Your task to perform on an android device: Show me productivity apps on the Play Store Image 0: 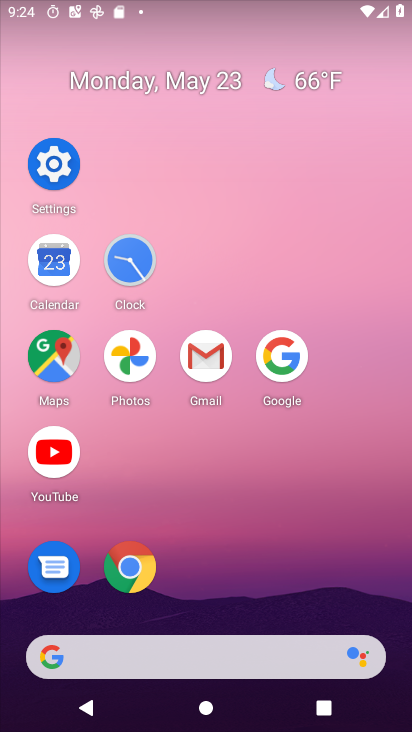
Step 0: drag from (258, 546) to (325, 110)
Your task to perform on an android device: Show me productivity apps on the Play Store Image 1: 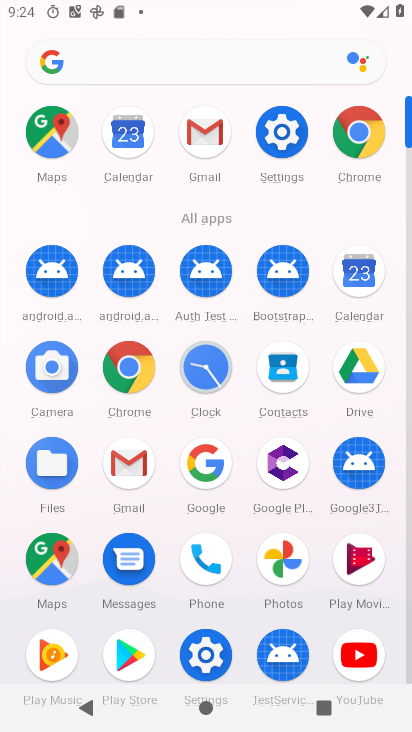
Step 1: click (127, 650)
Your task to perform on an android device: Show me productivity apps on the Play Store Image 2: 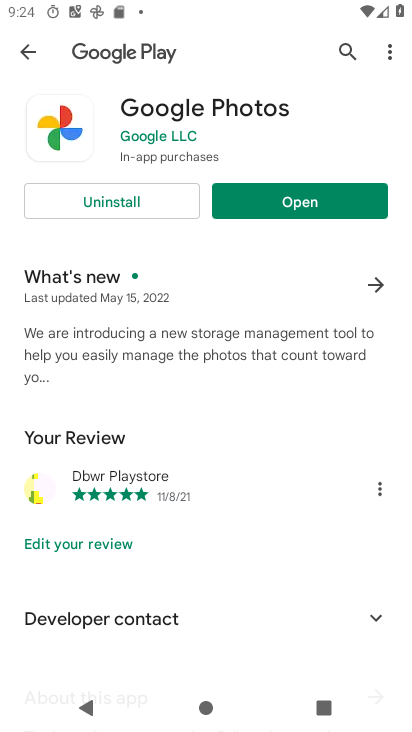
Step 2: click (24, 69)
Your task to perform on an android device: Show me productivity apps on the Play Store Image 3: 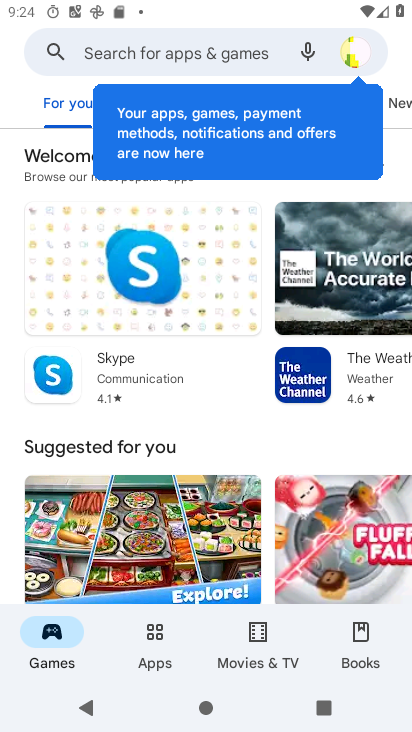
Step 3: click (183, 648)
Your task to perform on an android device: Show me productivity apps on the Play Store Image 4: 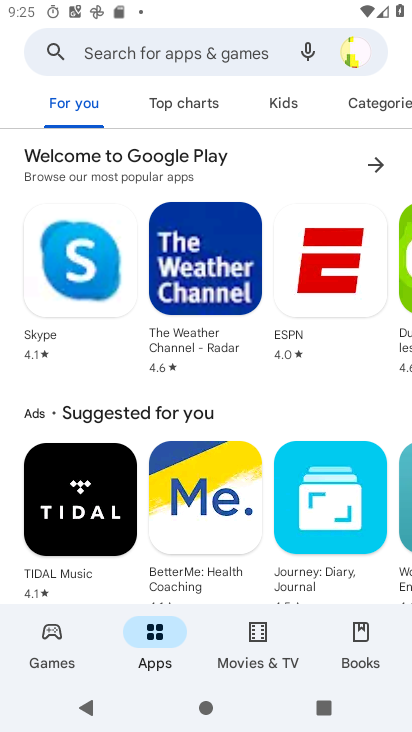
Step 4: click (371, 107)
Your task to perform on an android device: Show me productivity apps on the Play Store Image 5: 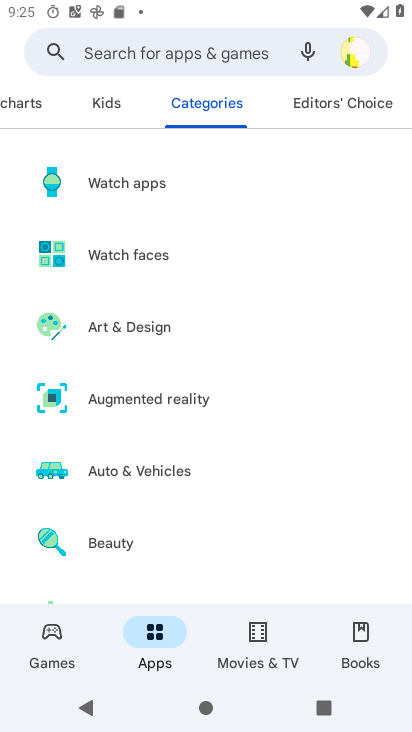
Step 5: drag from (167, 527) to (237, 115)
Your task to perform on an android device: Show me productivity apps on the Play Store Image 6: 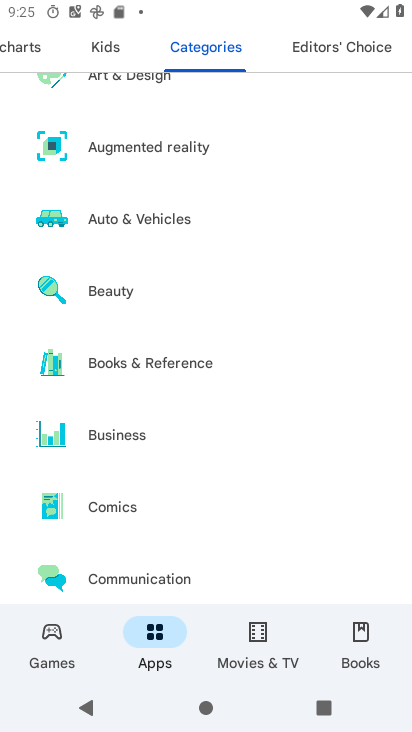
Step 6: drag from (210, 506) to (267, 171)
Your task to perform on an android device: Show me productivity apps on the Play Store Image 7: 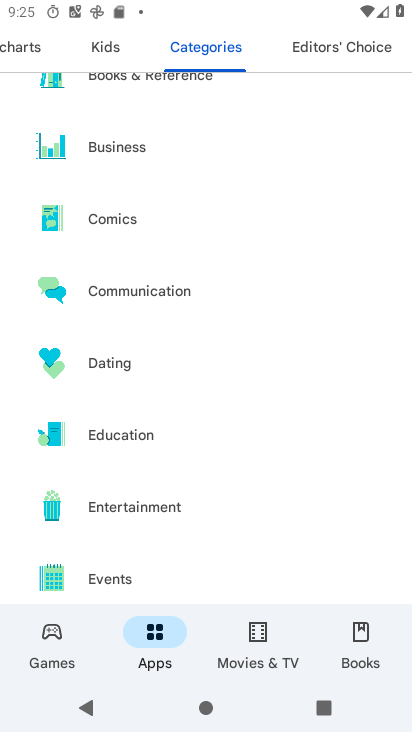
Step 7: drag from (209, 498) to (271, 131)
Your task to perform on an android device: Show me productivity apps on the Play Store Image 8: 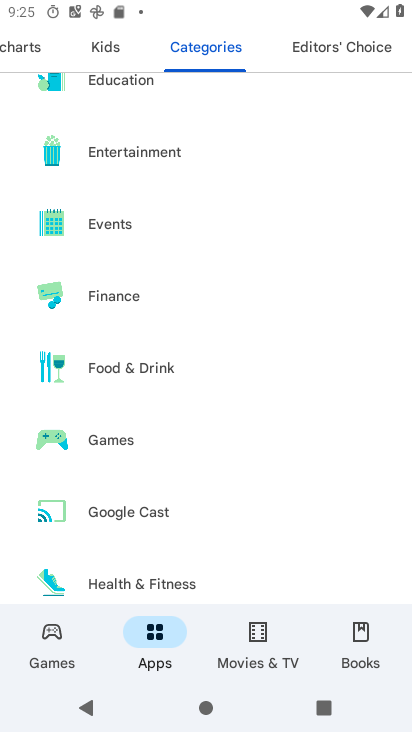
Step 8: drag from (228, 551) to (288, 190)
Your task to perform on an android device: Show me productivity apps on the Play Store Image 9: 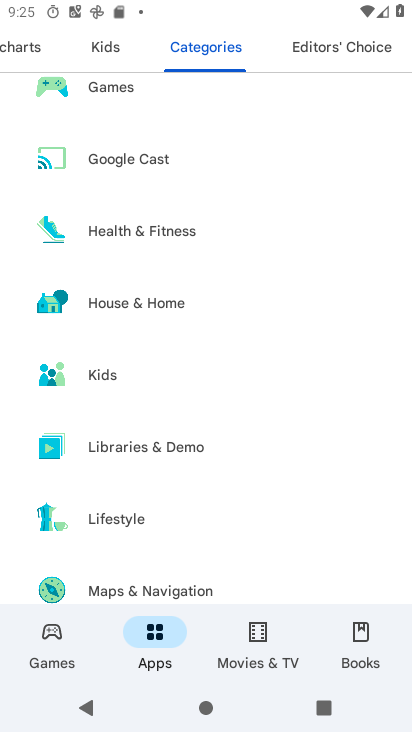
Step 9: drag from (199, 480) to (213, 185)
Your task to perform on an android device: Show me productivity apps on the Play Store Image 10: 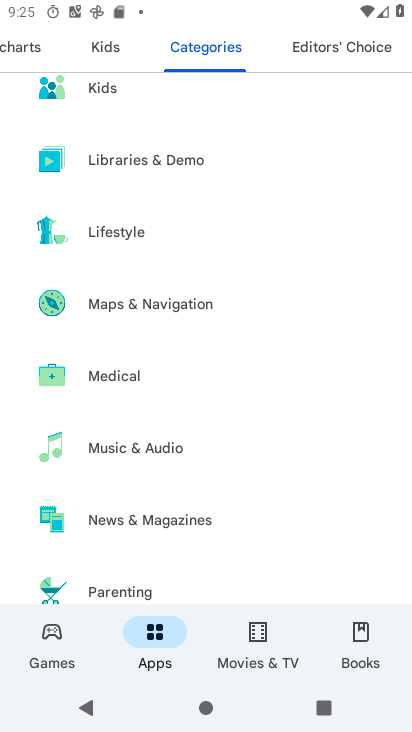
Step 10: drag from (186, 523) to (208, 174)
Your task to perform on an android device: Show me productivity apps on the Play Store Image 11: 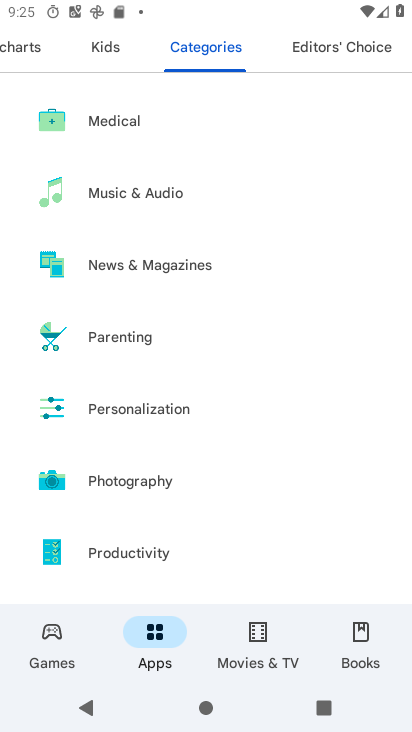
Step 11: click (167, 548)
Your task to perform on an android device: Show me productivity apps on the Play Store Image 12: 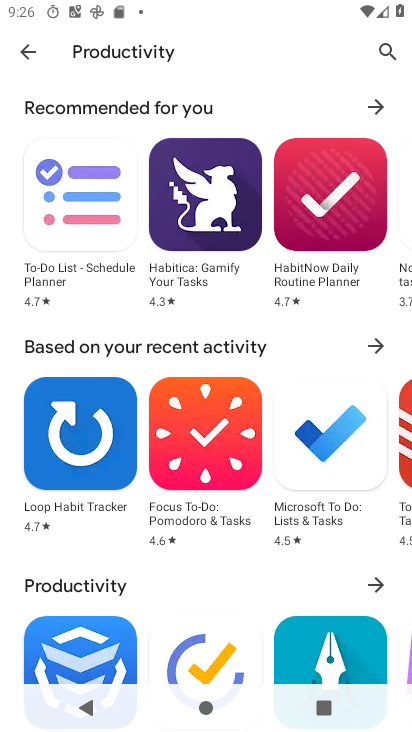
Step 12: task complete